Your task to perform on an android device: allow notifications from all sites in the chrome app Image 0: 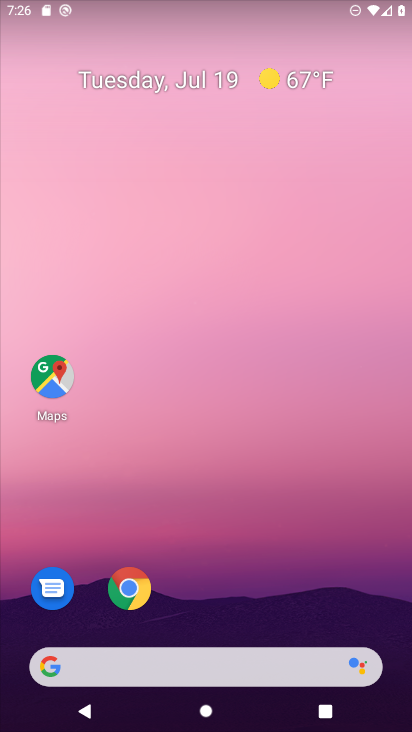
Step 0: drag from (357, 563) to (358, 167)
Your task to perform on an android device: allow notifications from all sites in the chrome app Image 1: 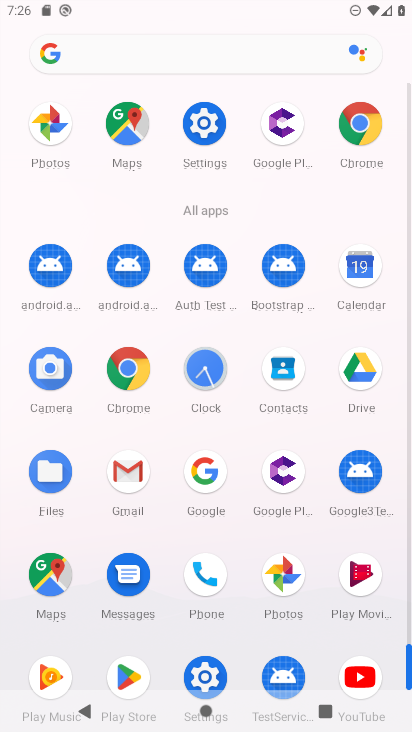
Step 1: click (366, 134)
Your task to perform on an android device: allow notifications from all sites in the chrome app Image 2: 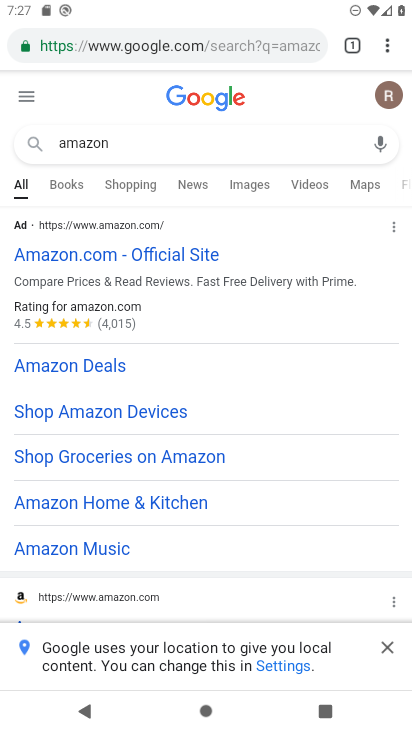
Step 2: click (389, 51)
Your task to perform on an android device: allow notifications from all sites in the chrome app Image 3: 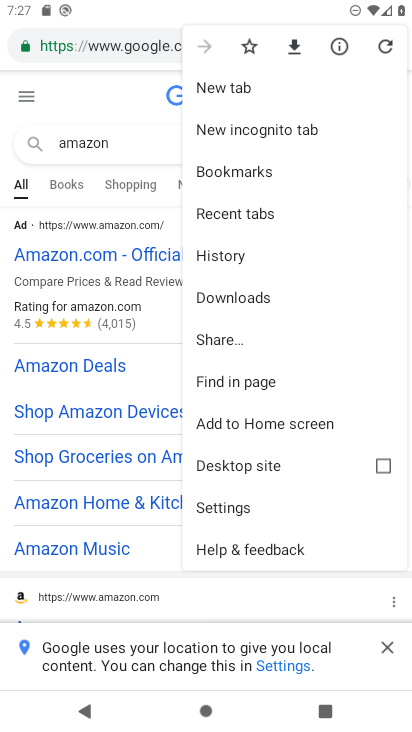
Step 3: click (260, 506)
Your task to perform on an android device: allow notifications from all sites in the chrome app Image 4: 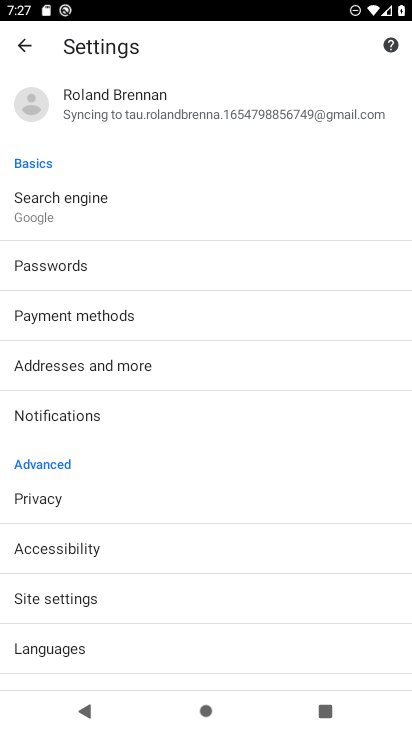
Step 4: drag from (291, 519) to (303, 465)
Your task to perform on an android device: allow notifications from all sites in the chrome app Image 5: 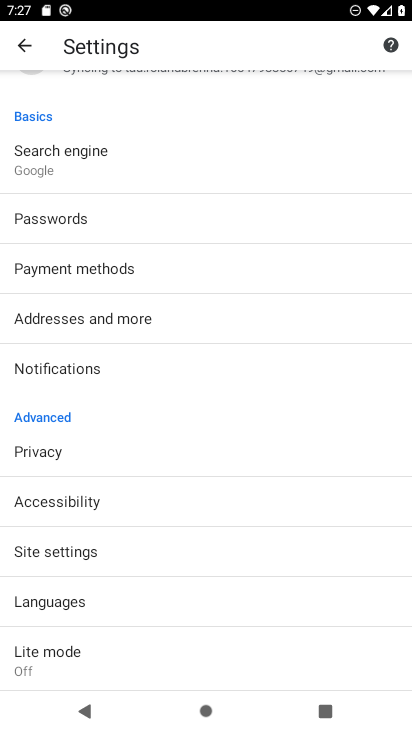
Step 5: drag from (311, 537) to (326, 461)
Your task to perform on an android device: allow notifications from all sites in the chrome app Image 6: 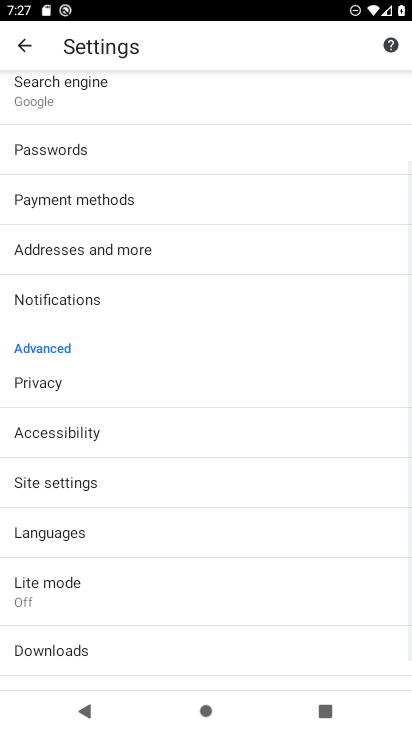
Step 6: drag from (332, 541) to (337, 438)
Your task to perform on an android device: allow notifications from all sites in the chrome app Image 7: 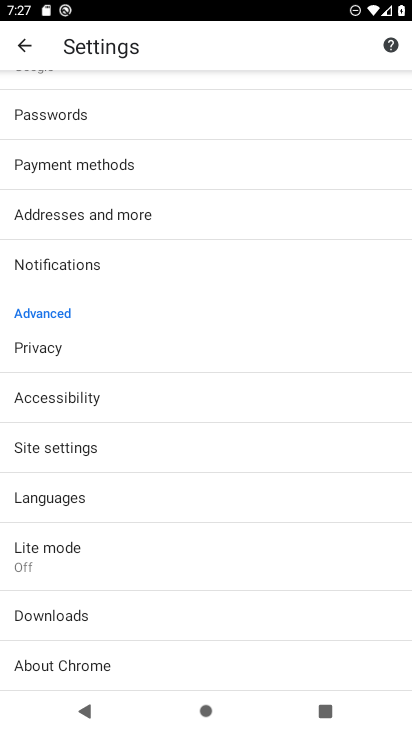
Step 7: click (337, 438)
Your task to perform on an android device: allow notifications from all sites in the chrome app Image 8: 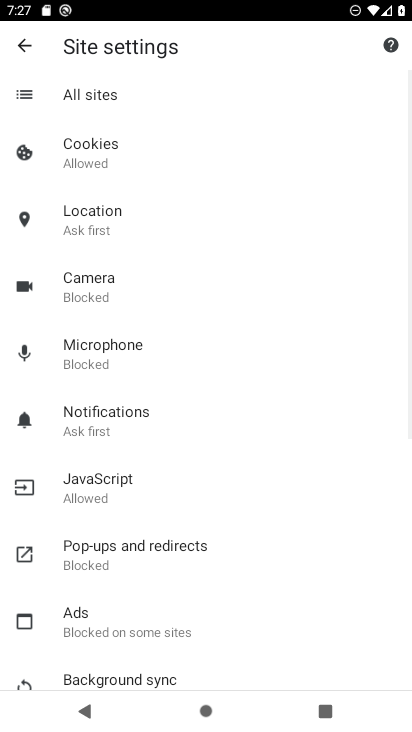
Step 8: drag from (308, 471) to (319, 408)
Your task to perform on an android device: allow notifications from all sites in the chrome app Image 9: 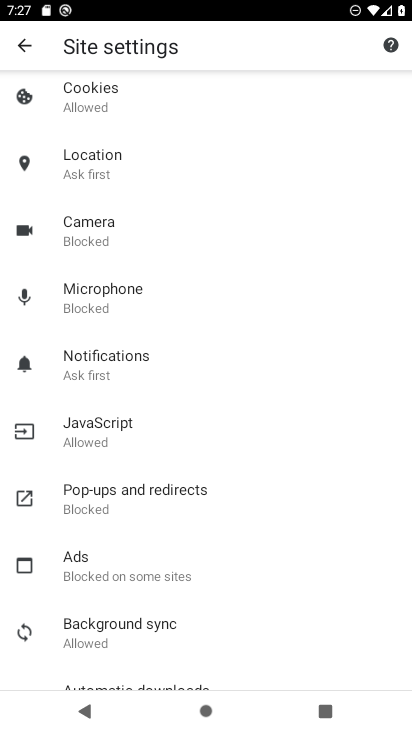
Step 9: drag from (329, 514) to (340, 428)
Your task to perform on an android device: allow notifications from all sites in the chrome app Image 10: 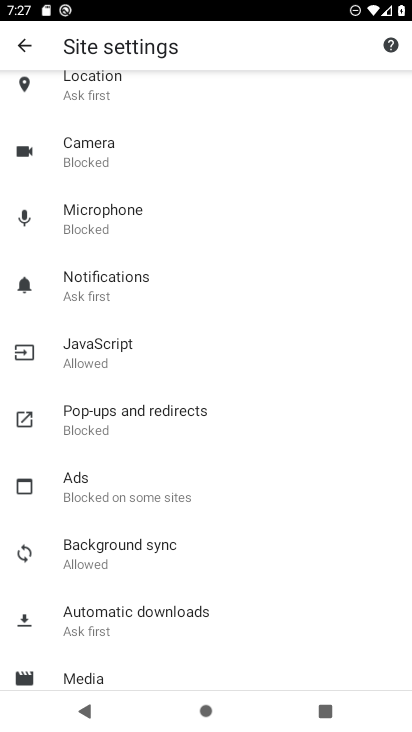
Step 10: drag from (320, 518) to (330, 434)
Your task to perform on an android device: allow notifications from all sites in the chrome app Image 11: 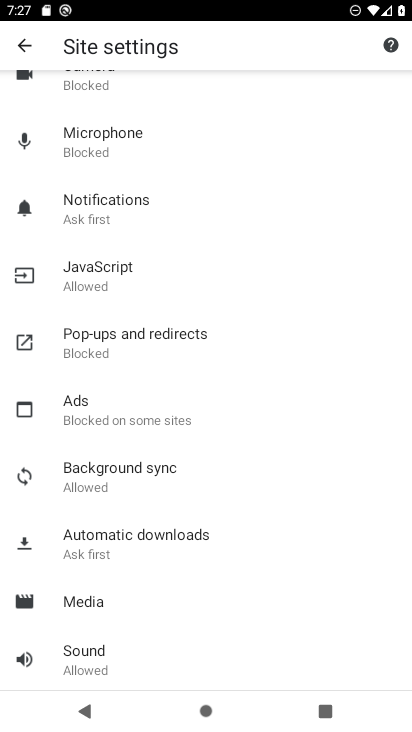
Step 11: click (213, 209)
Your task to perform on an android device: allow notifications from all sites in the chrome app Image 12: 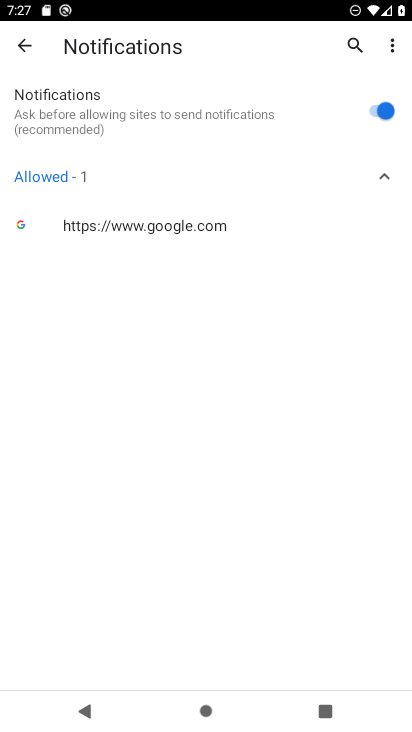
Step 12: task complete